Your task to perform on an android device: see sites visited before in the chrome app Image 0: 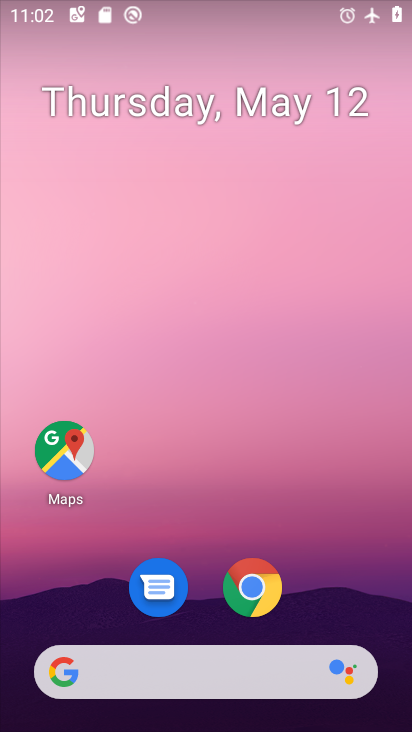
Step 0: drag from (397, 629) to (152, 44)
Your task to perform on an android device: see sites visited before in the chrome app Image 1: 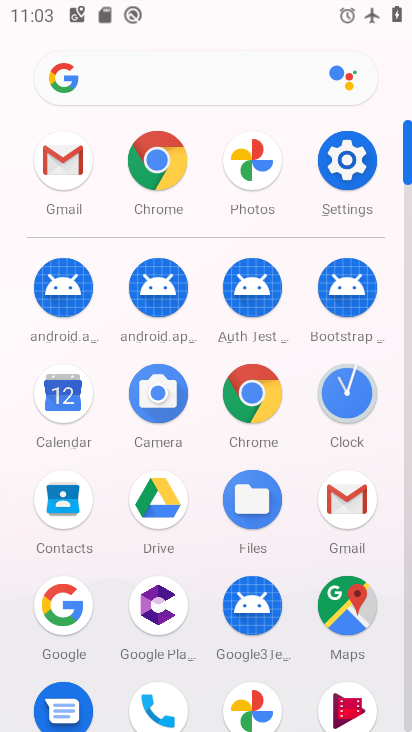
Step 1: click (260, 399)
Your task to perform on an android device: see sites visited before in the chrome app Image 2: 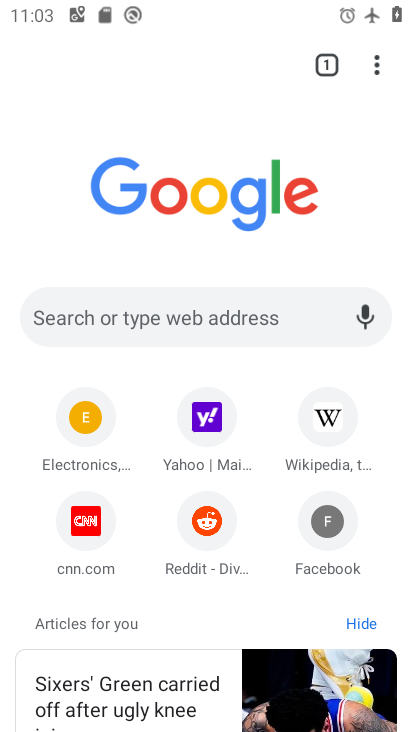
Step 2: click (381, 56)
Your task to perform on an android device: see sites visited before in the chrome app Image 3: 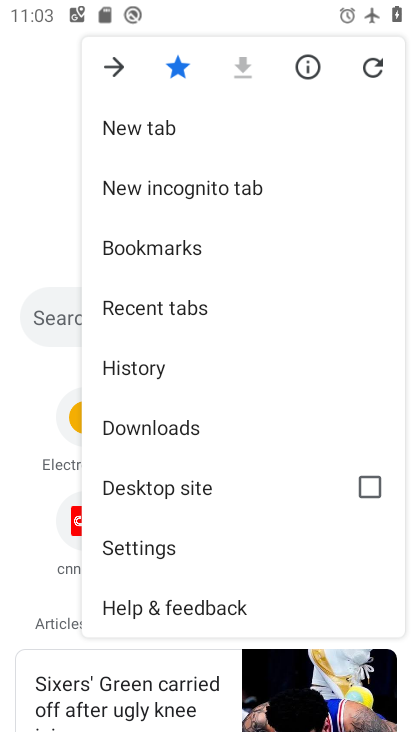
Step 3: click (111, 363)
Your task to perform on an android device: see sites visited before in the chrome app Image 4: 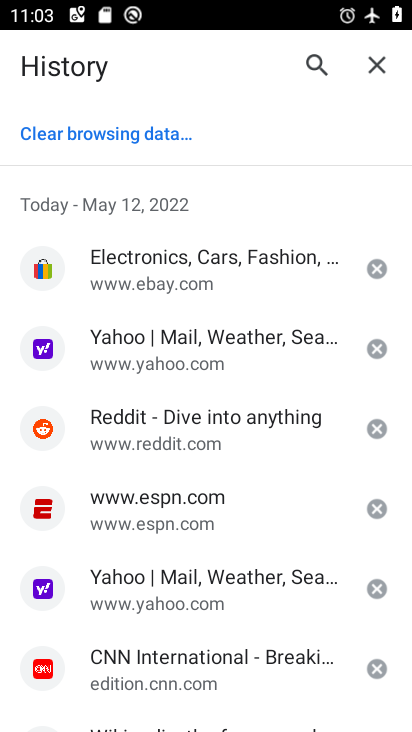
Step 4: click (150, 297)
Your task to perform on an android device: see sites visited before in the chrome app Image 5: 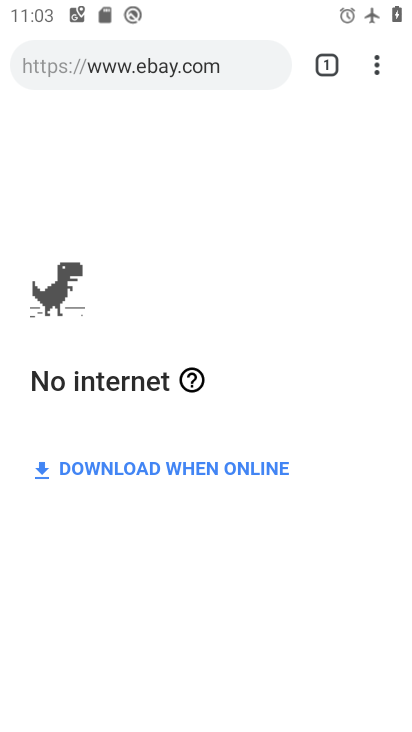
Step 5: task complete